Your task to perform on an android device: turn vacation reply on in the gmail app Image 0: 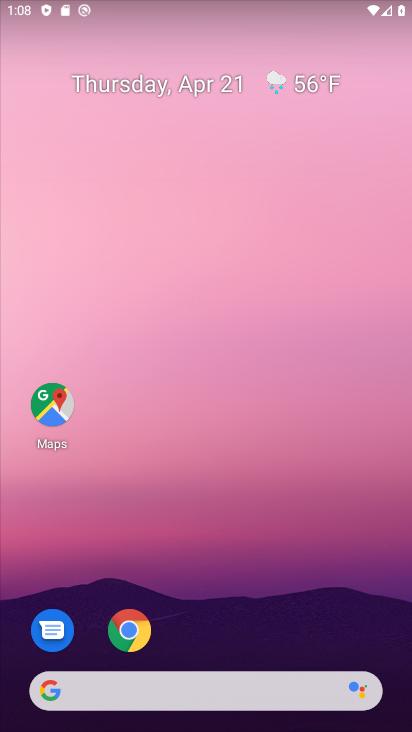
Step 0: drag from (185, 687) to (10, 15)
Your task to perform on an android device: turn vacation reply on in the gmail app Image 1: 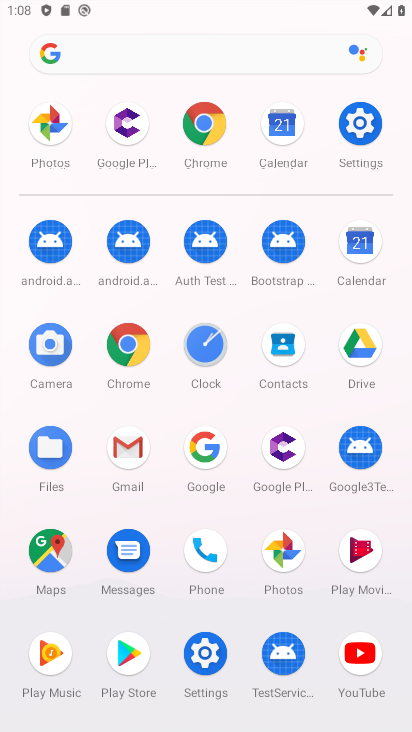
Step 1: click (135, 448)
Your task to perform on an android device: turn vacation reply on in the gmail app Image 2: 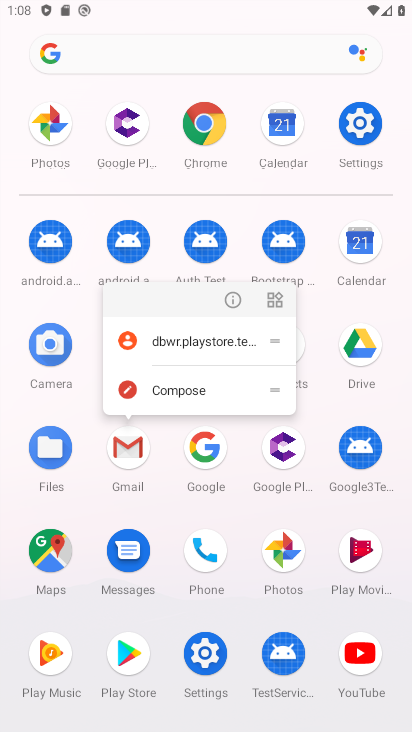
Step 2: click (135, 448)
Your task to perform on an android device: turn vacation reply on in the gmail app Image 3: 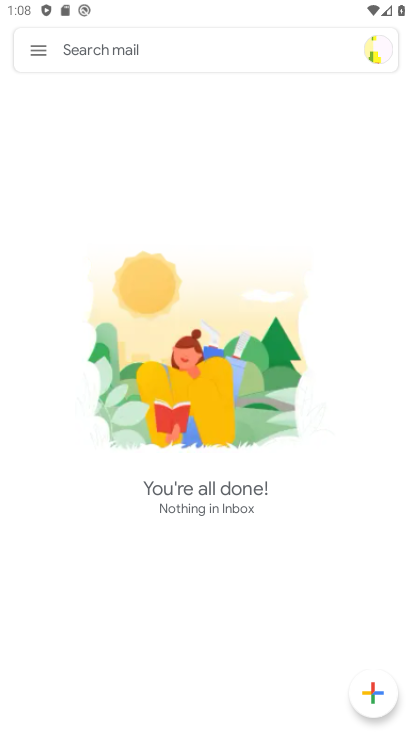
Step 3: click (44, 48)
Your task to perform on an android device: turn vacation reply on in the gmail app Image 4: 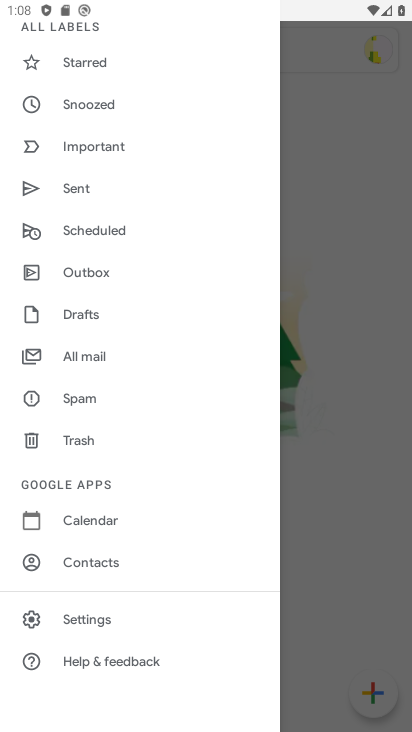
Step 4: click (110, 613)
Your task to perform on an android device: turn vacation reply on in the gmail app Image 5: 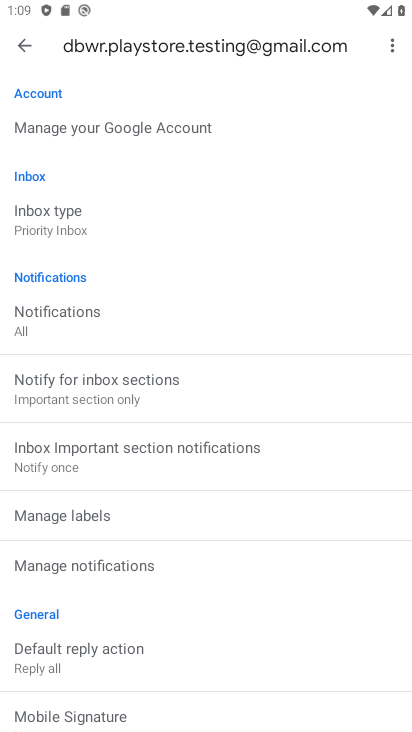
Step 5: drag from (119, 611) to (201, 19)
Your task to perform on an android device: turn vacation reply on in the gmail app Image 6: 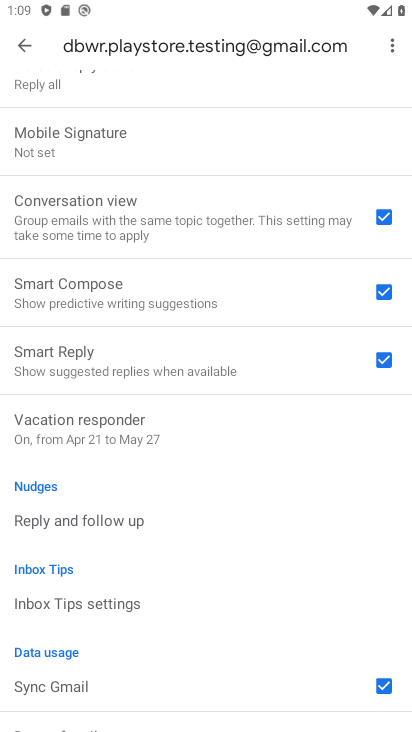
Step 6: click (190, 430)
Your task to perform on an android device: turn vacation reply on in the gmail app Image 7: 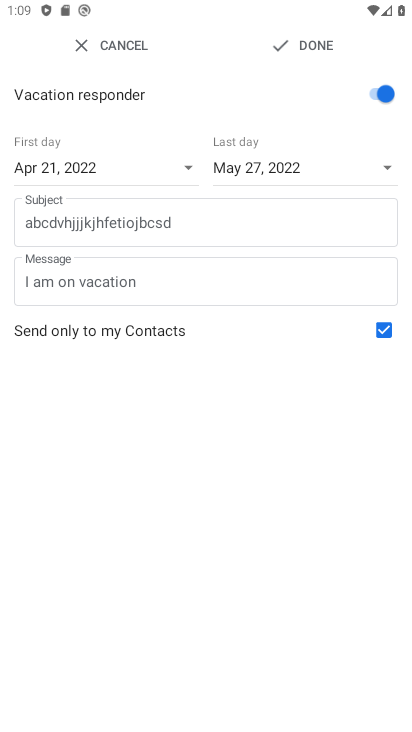
Step 7: click (307, 46)
Your task to perform on an android device: turn vacation reply on in the gmail app Image 8: 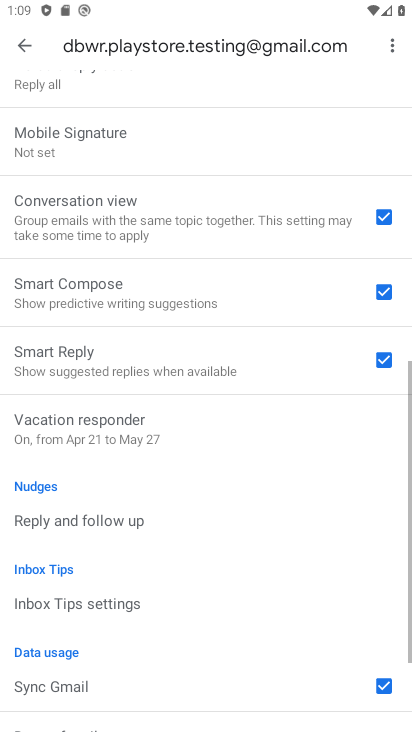
Step 8: task complete